Your task to perform on an android device: open app "Facebook" (install if not already installed) Image 0: 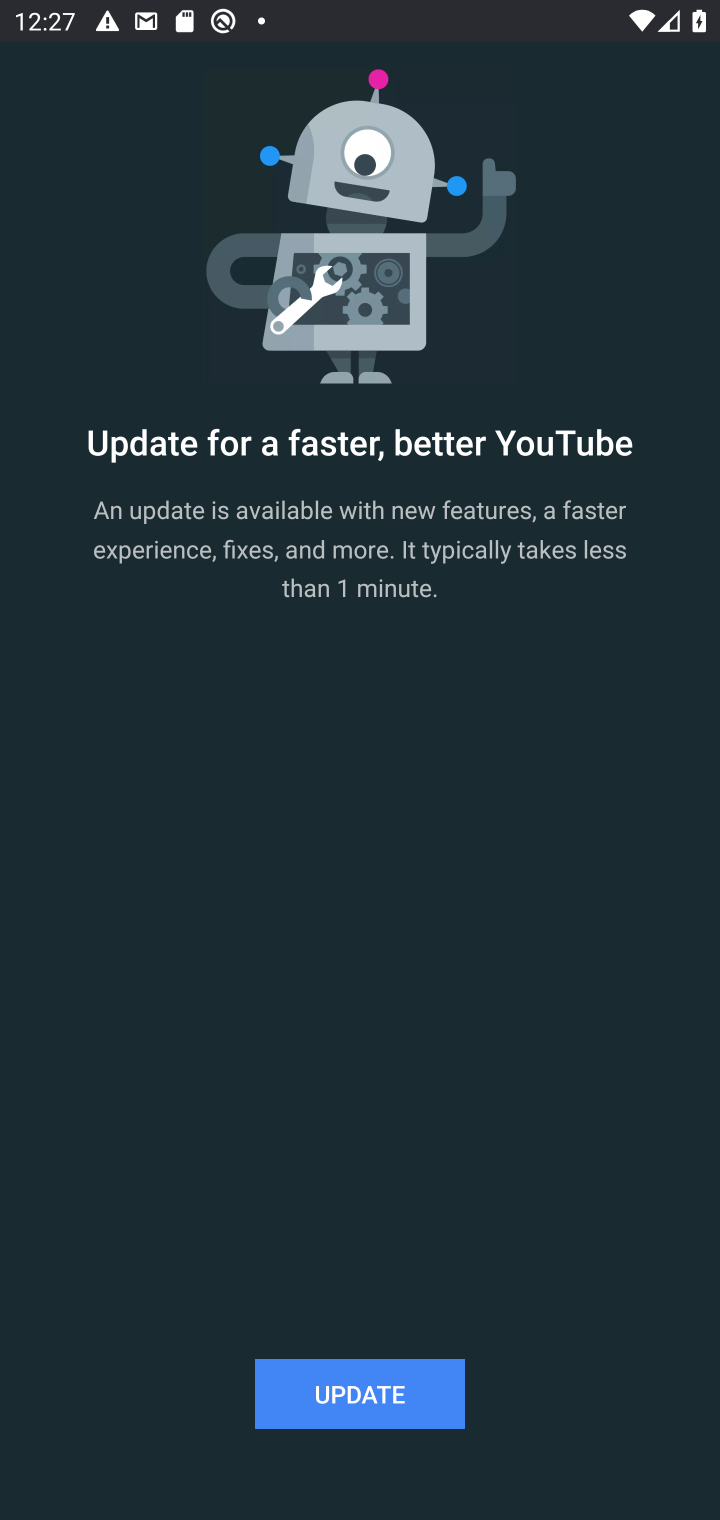
Step 0: press home button
Your task to perform on an android device: open app "Facebook" (install if not already installed) Image 1: 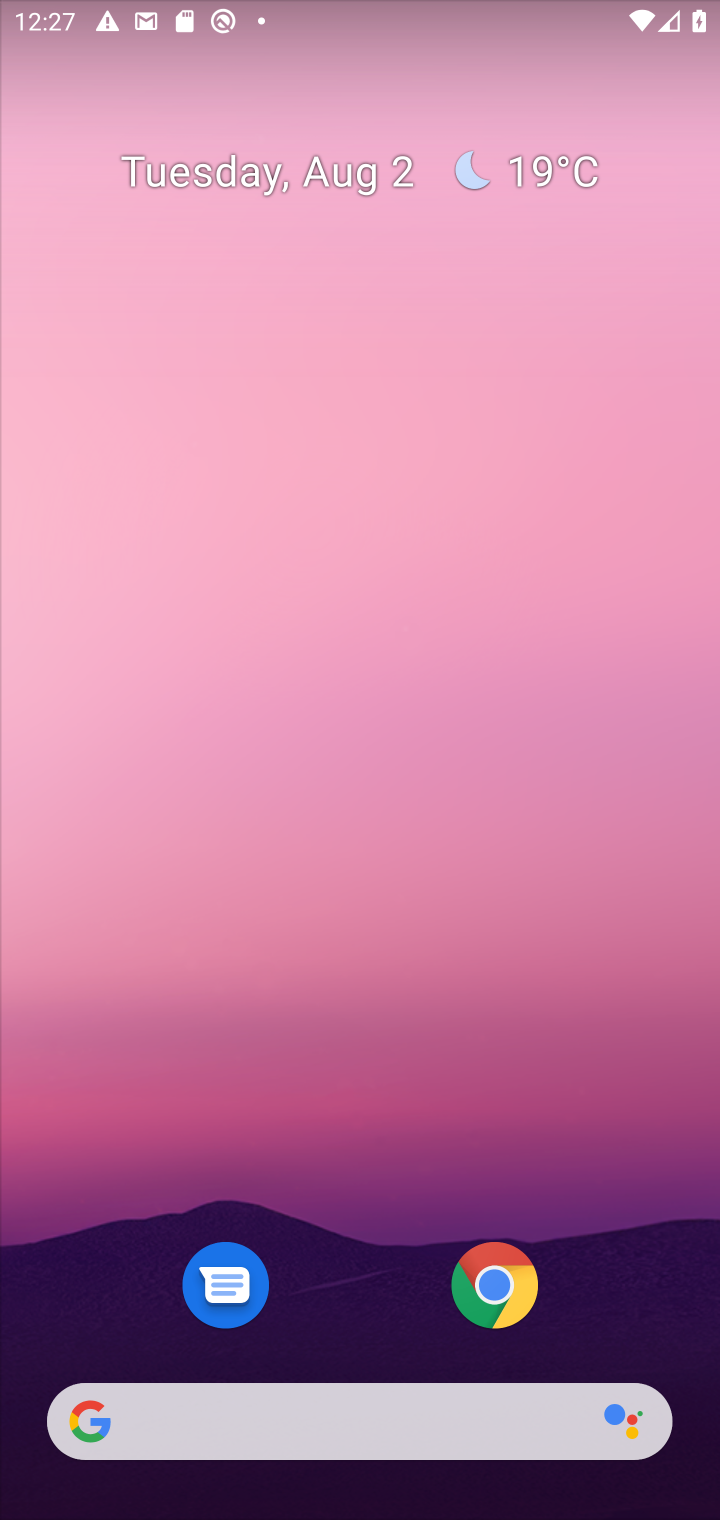
Step 1: drag from (198, 504) to (193, 240)
Your task to perform on an android device: open app "Facebook" (install if not already installed) Image 2: 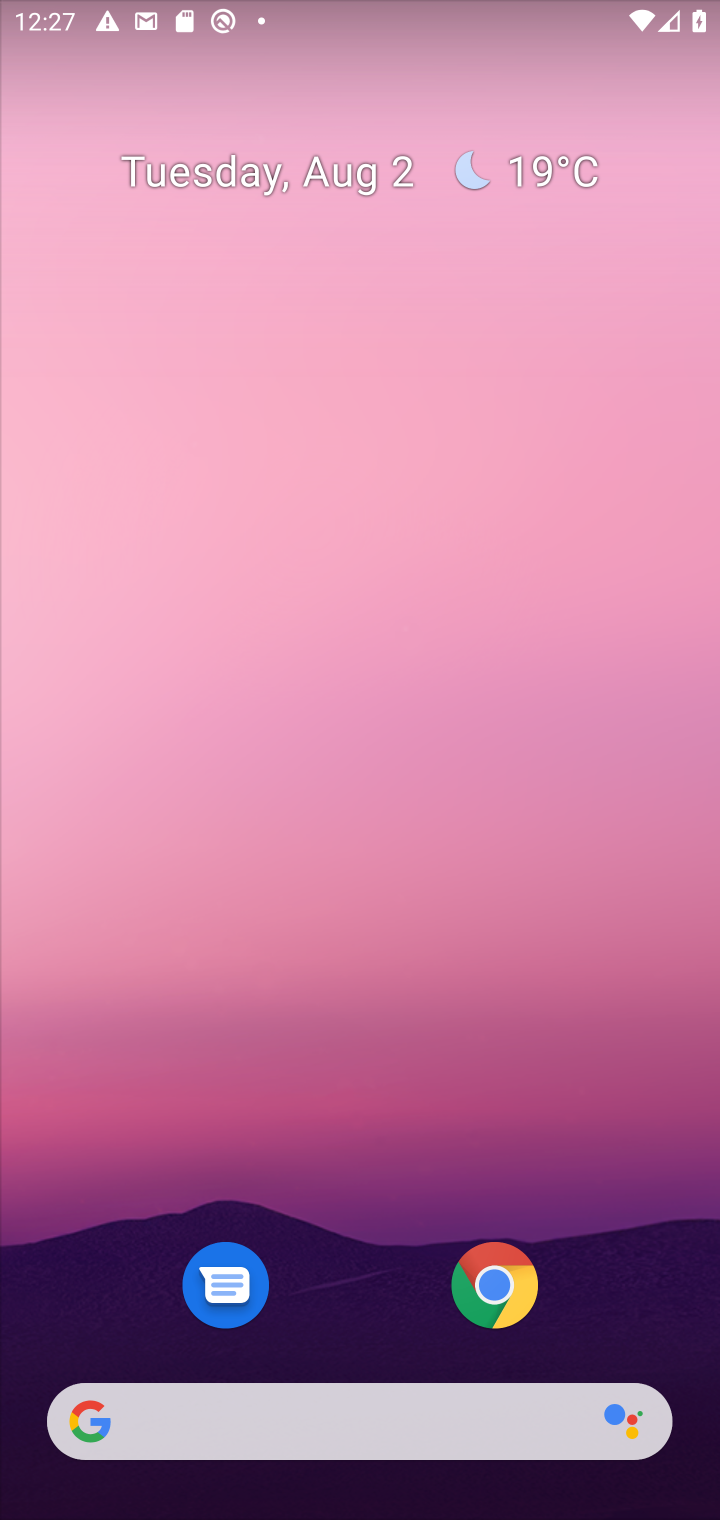
Step 2: drag from (380, 1005) to (250, 251)
Your task to perform on an android device: open app "Facebook" (install if not already installed) Image 3: 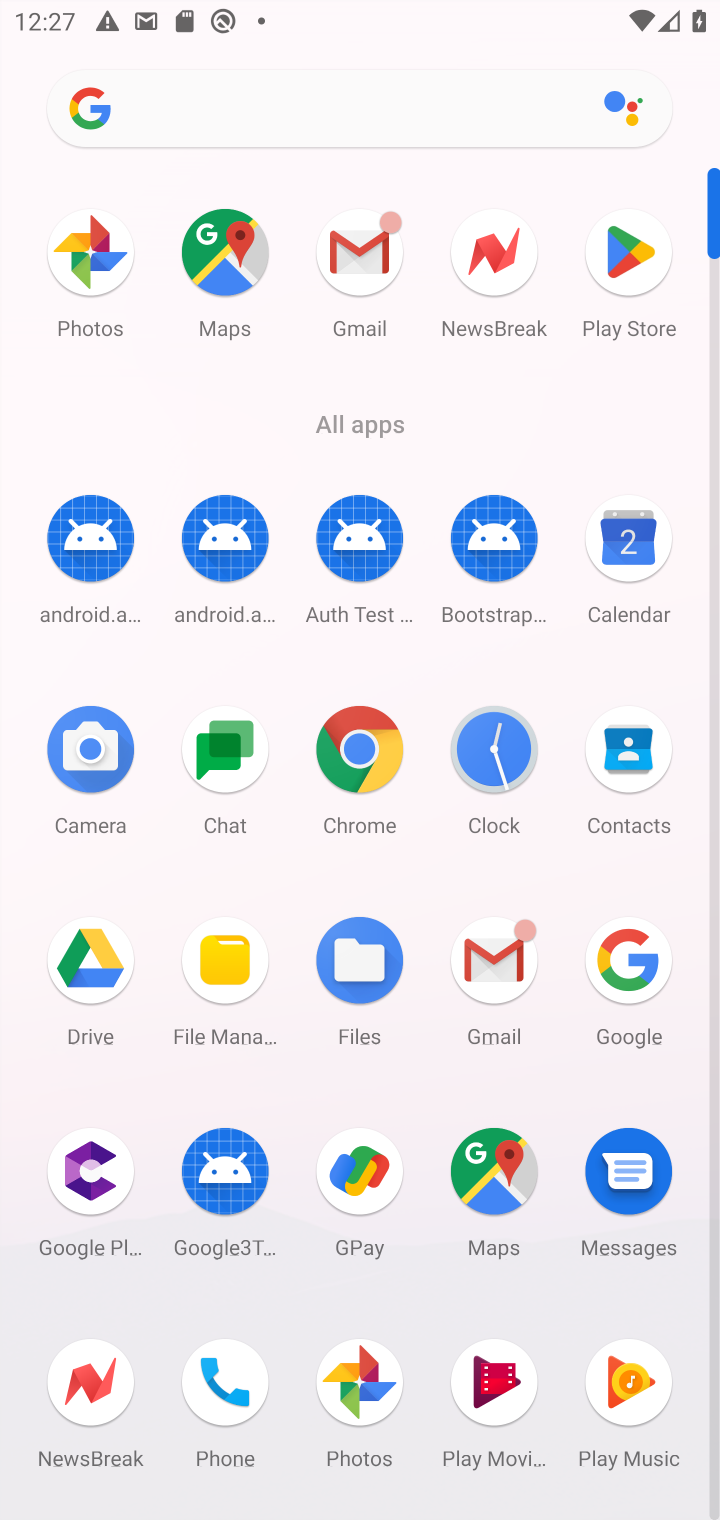
Step 3: click (655, 266)
Your task to perform on an android device: open app "Facebook" (install if not already installed) Image 4: 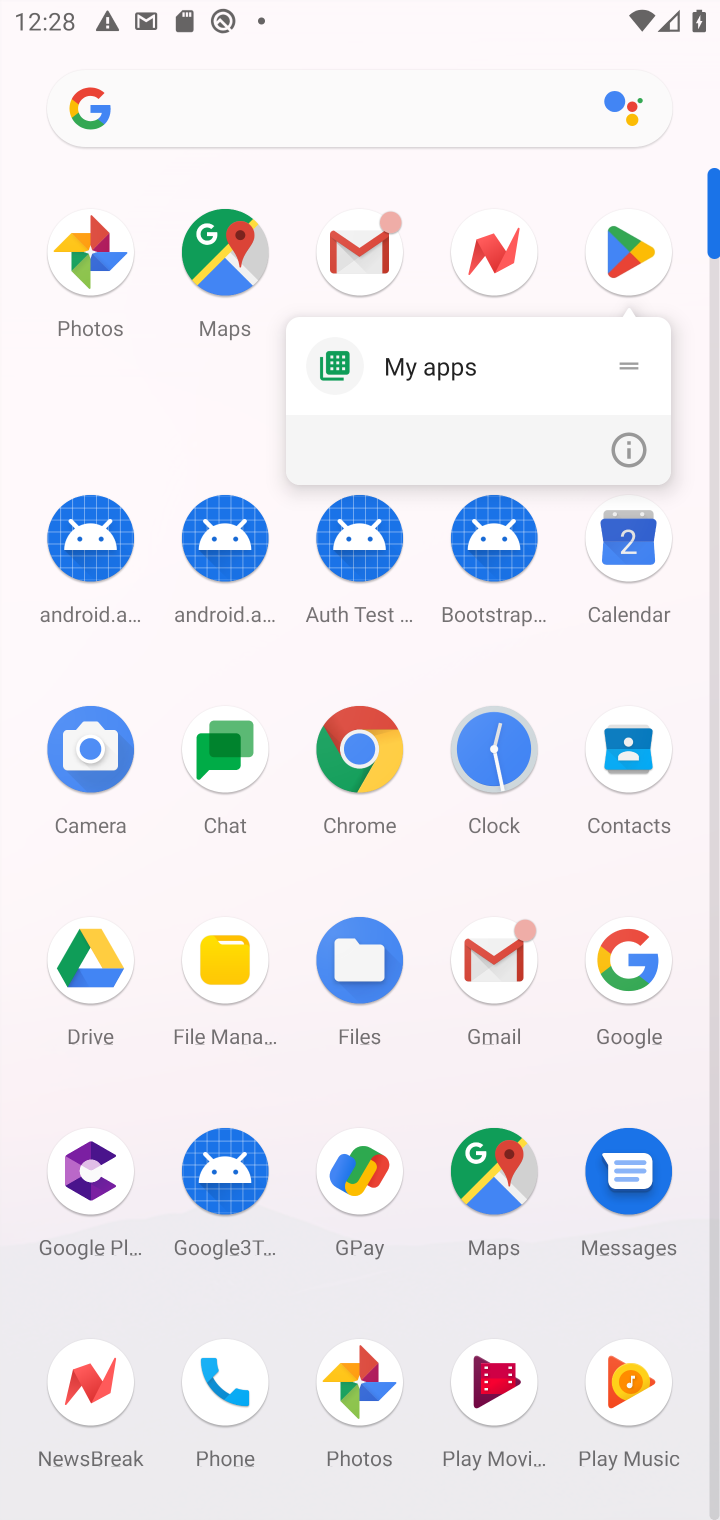
Step 4: click (397, 266)
Your task to perform on an android device: open app "Facebook" (install if not already installed) Image 5: 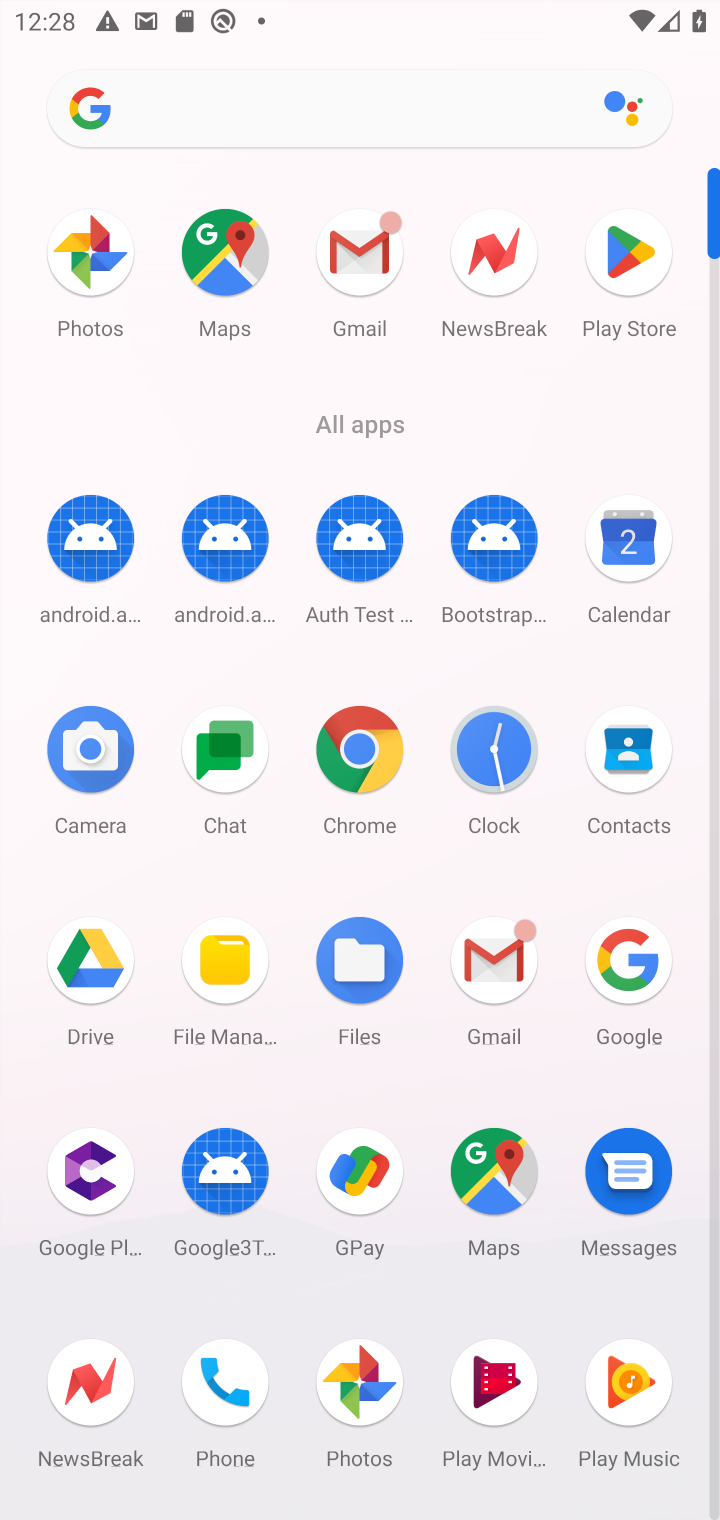
Step 5: press home button
Your task to perform on an android device: open app "Facebook" (install if not already installed) Image 6: 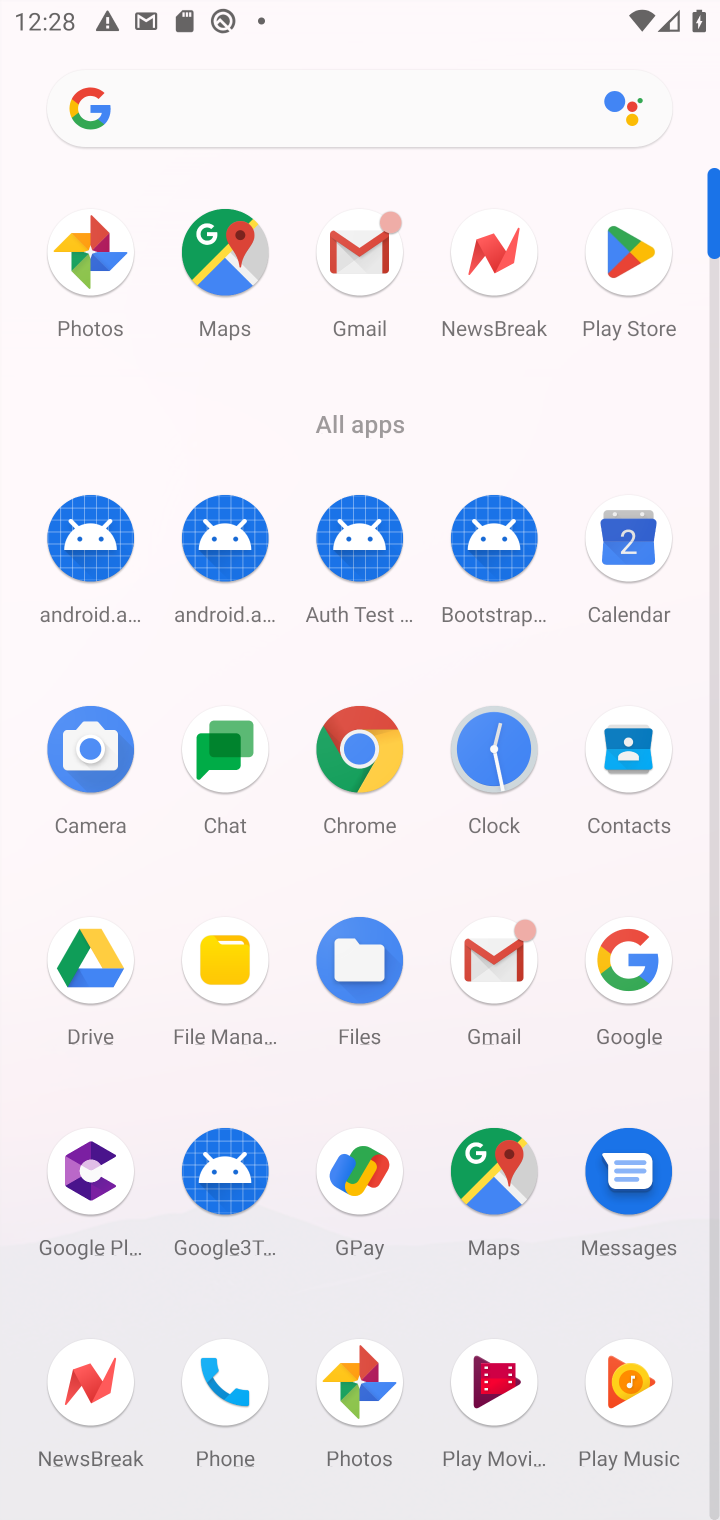
Step 6: press home button
Your task to perform on an android device: open app "Facebook" (install if not already installed) Image 7: 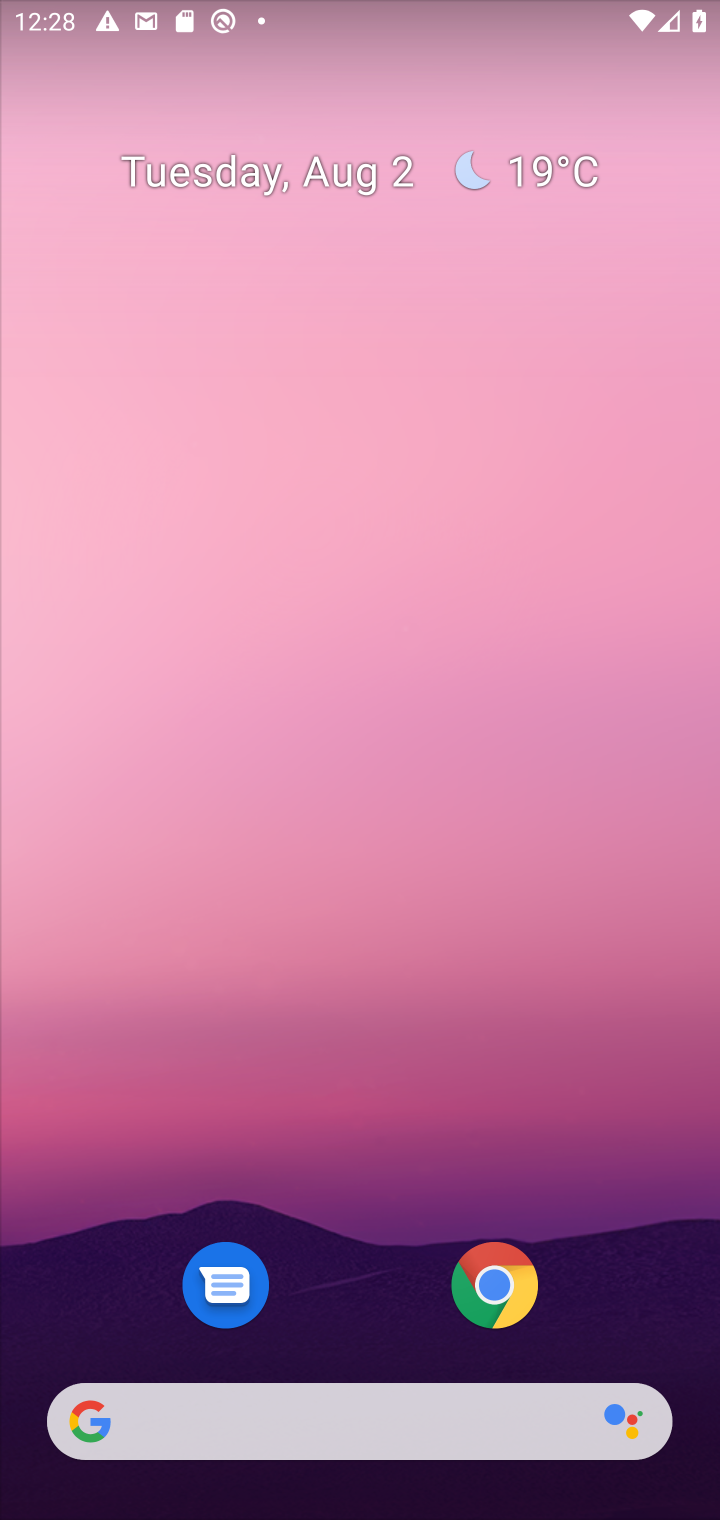
Step 7: drag from (625, 1241) to (229, 181)
Your task to perform on an android device: open app "Facebook" (install if not already installed) Image 8: 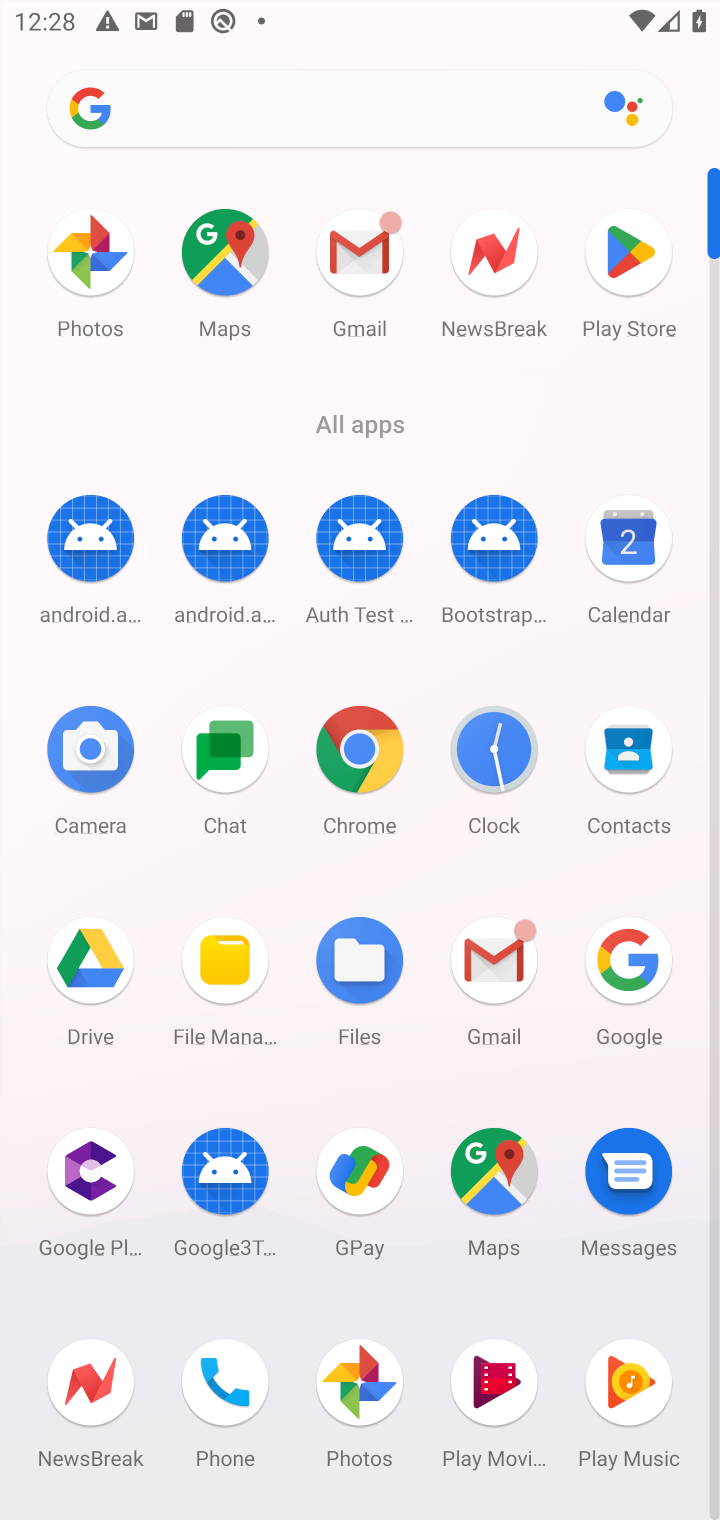
Step 8: click (626, 229)
Your task to perform on an android device: open app "Facebook" (install if not already installed) Image 9: 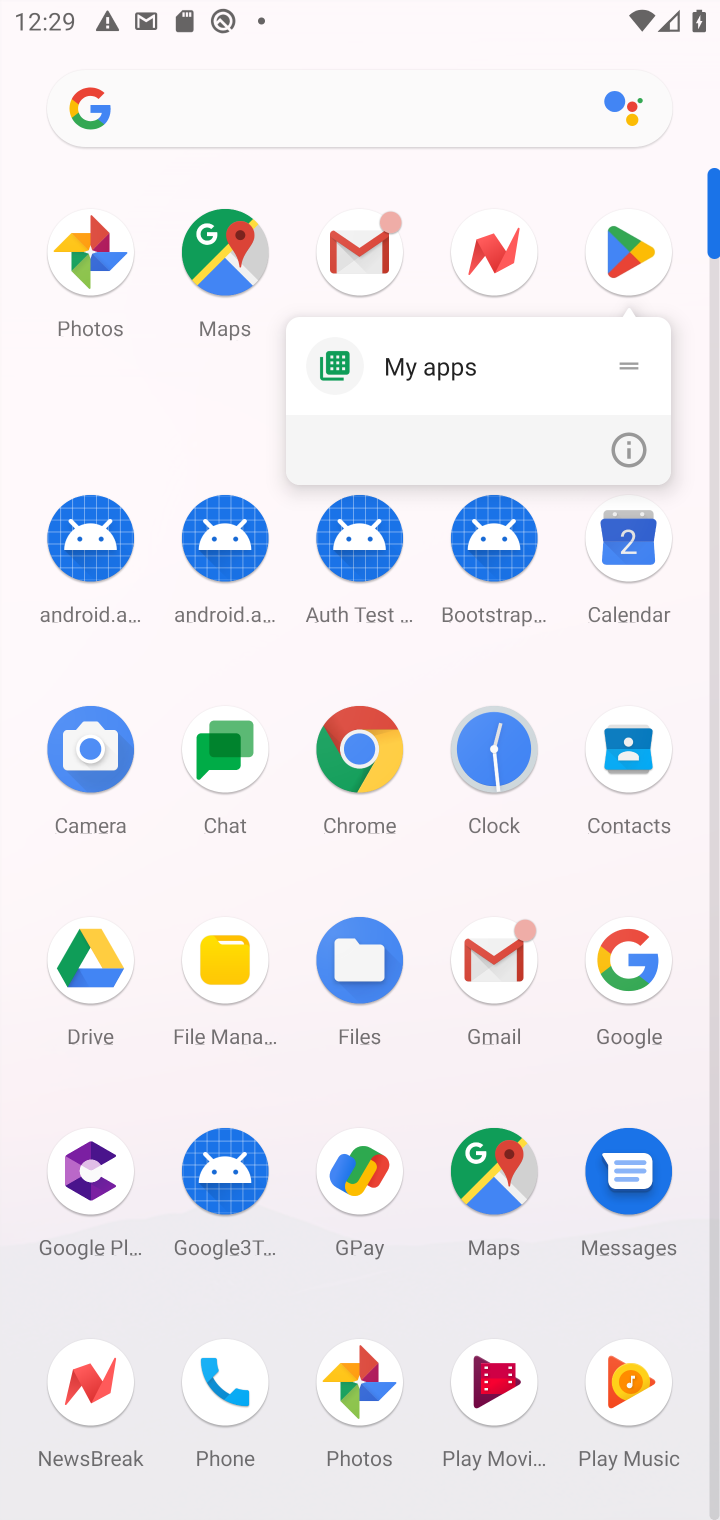
Step 9: click (631, 232)
Your task to perform on an android device: open app "Facebook" (install if not already installed) Image 10: 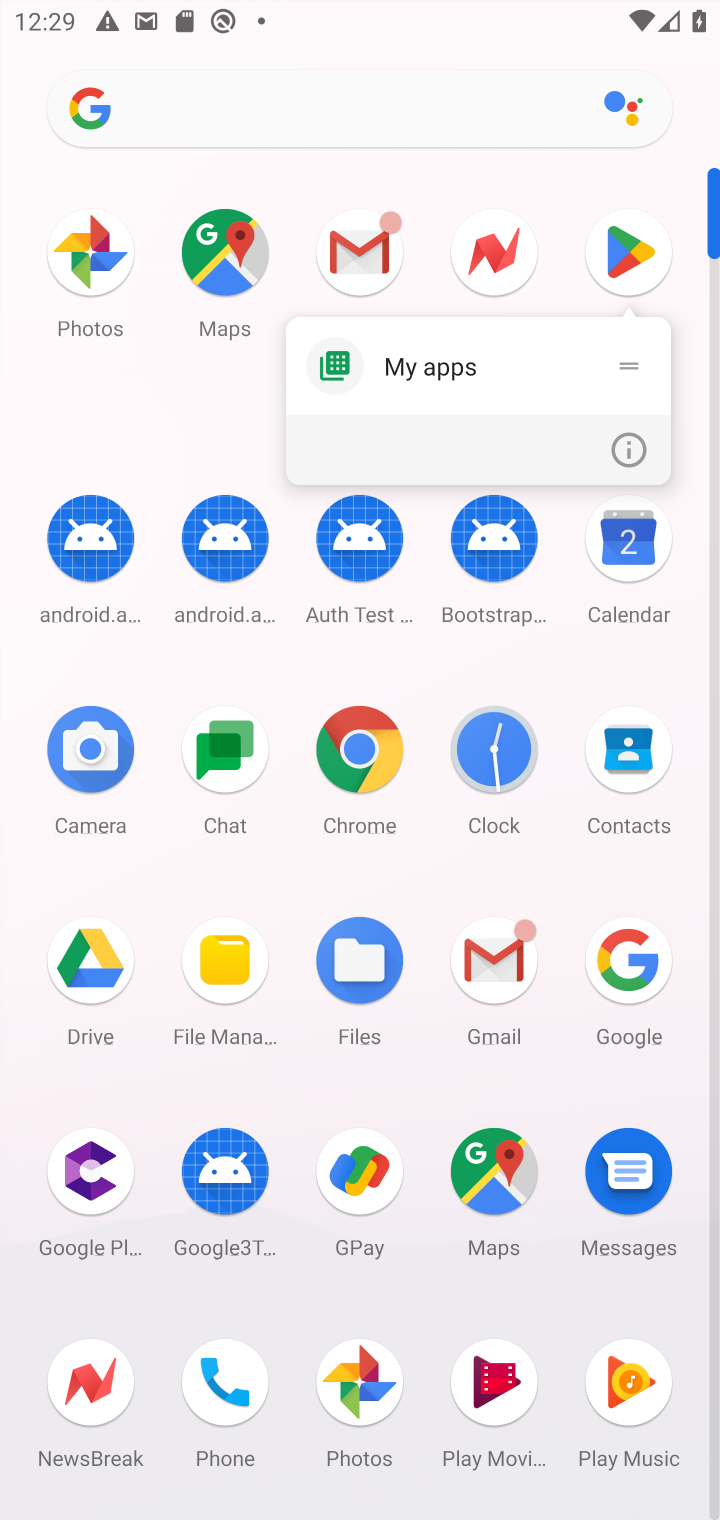
Step 10: click (626, 263)
Your task to perform on an android device: open app "Facebook" (install if not already installed) Image 11: 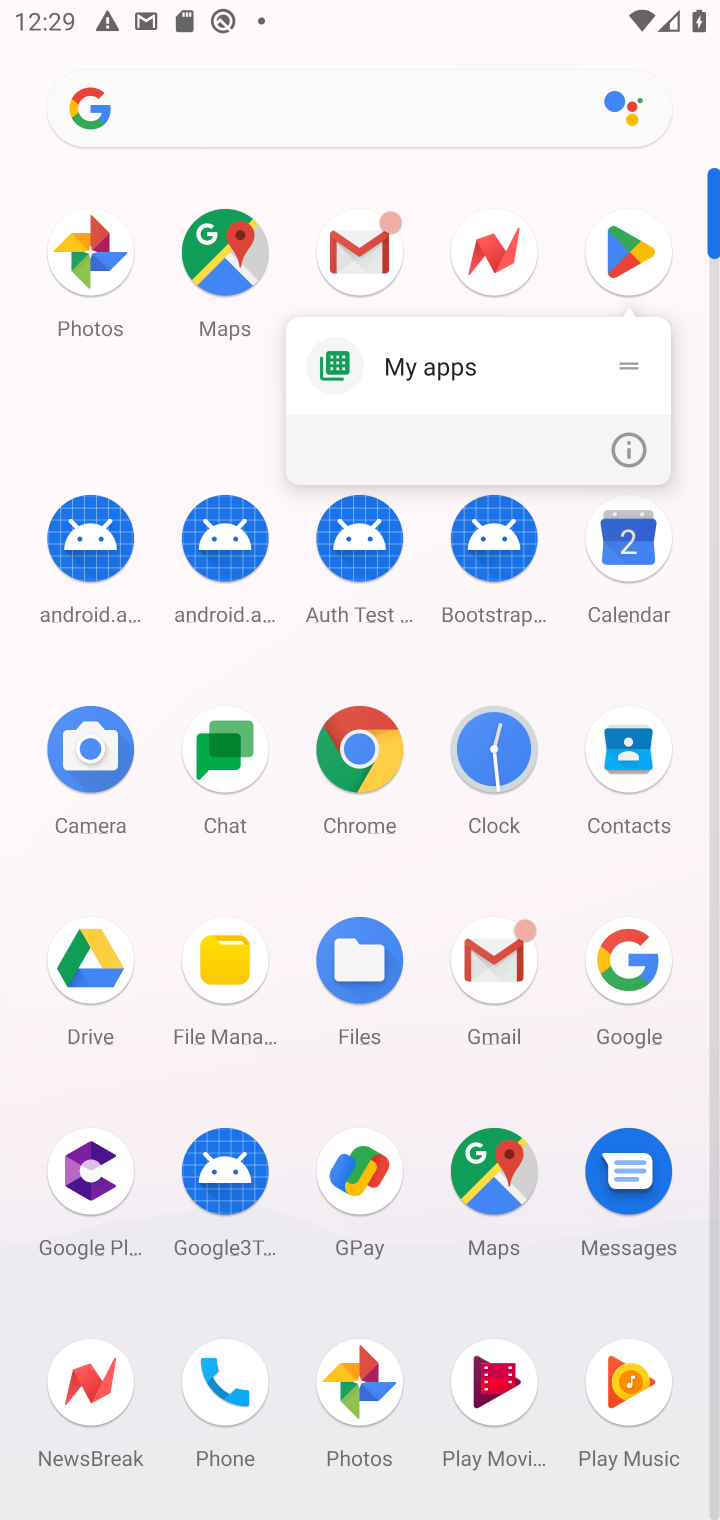
Step 11: click (650, 269)
Your task to perform on an android device: open app "Facebook" (install if not already installed) Image 12: 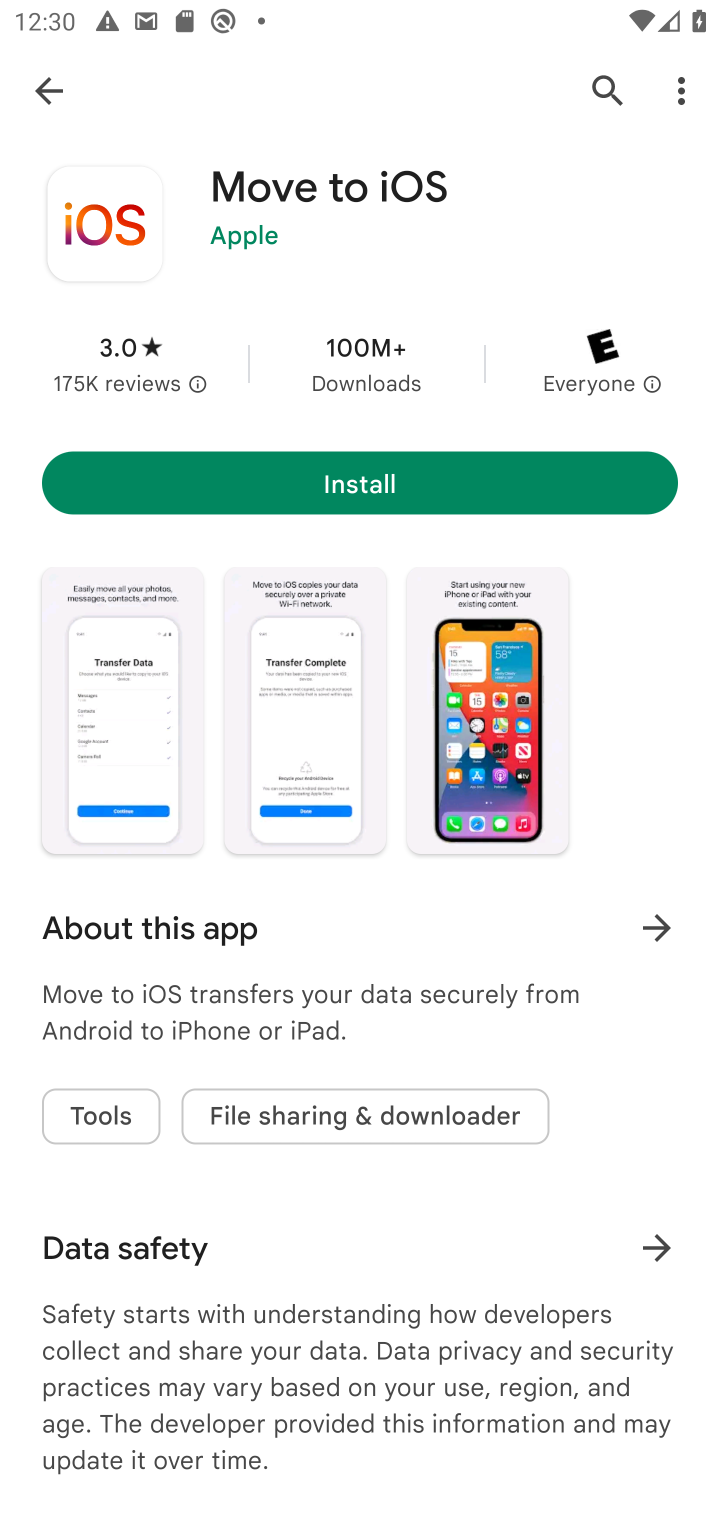
Step 12: click (614, 95)
Your task to perform on an android device: open app "Facebook" (install if not already installed) Image 13: 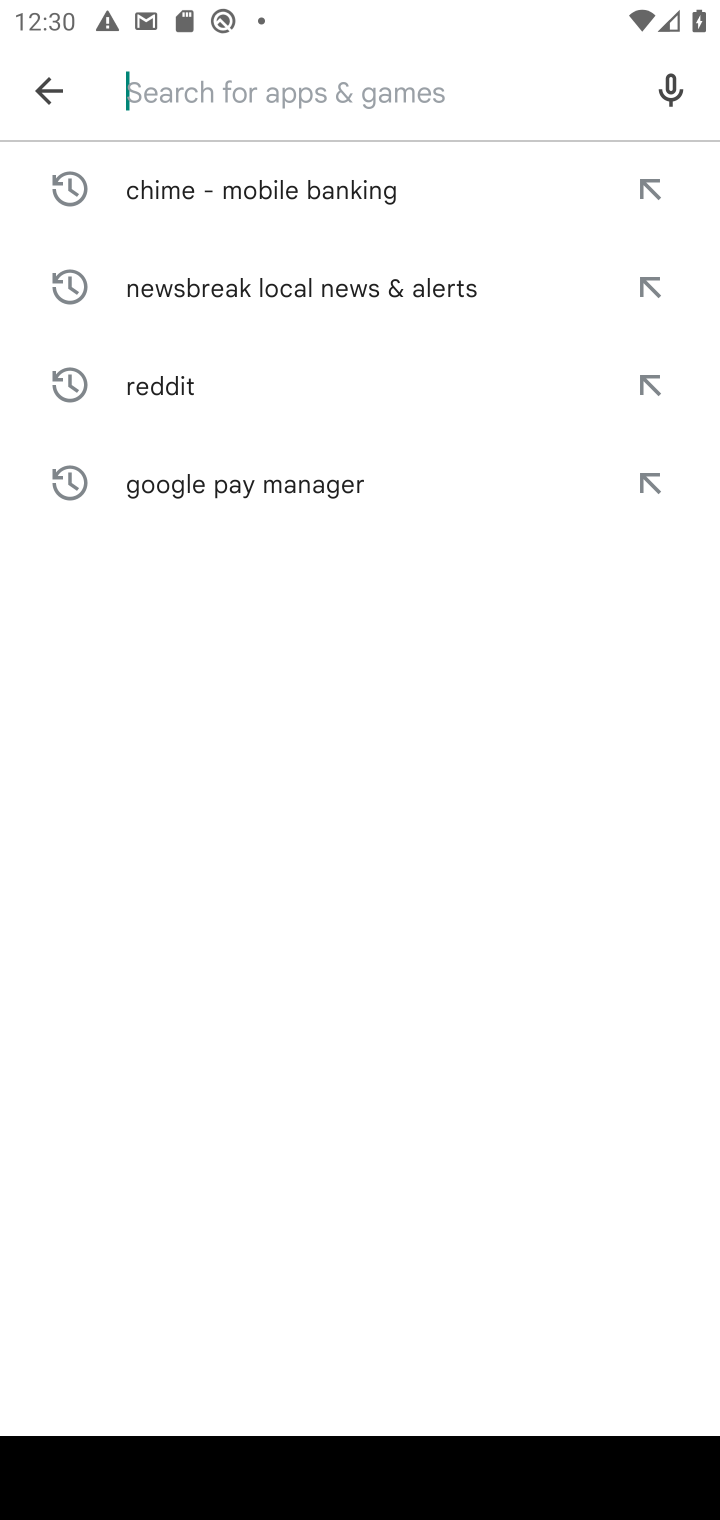
Step 13: click (231, 88)
Your task to perform on an android device: open app "Facebook" (install if not already installed) Image 14: 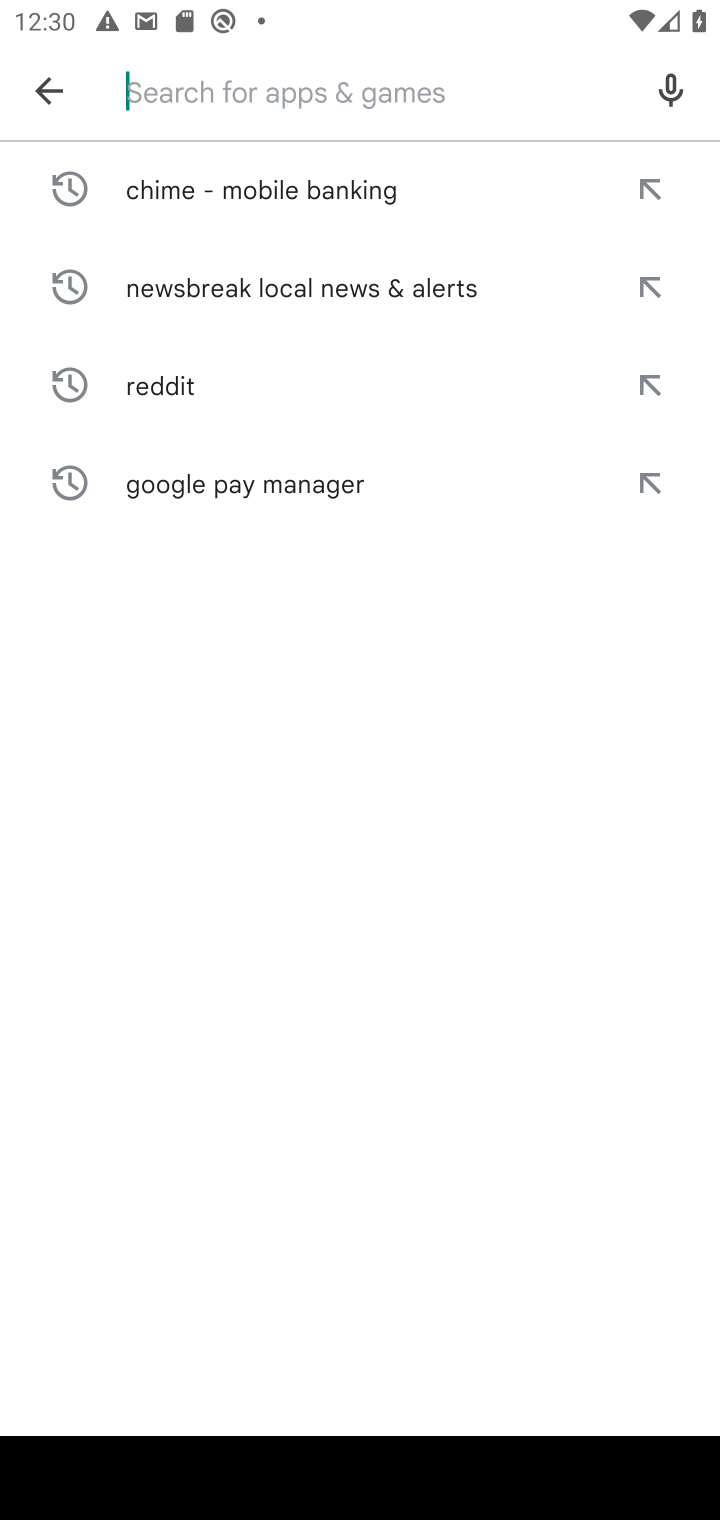
Step 14: click (222, 88)
Your task to perform on an android device: open app "Facebook" (install if not already installed) Image 15: 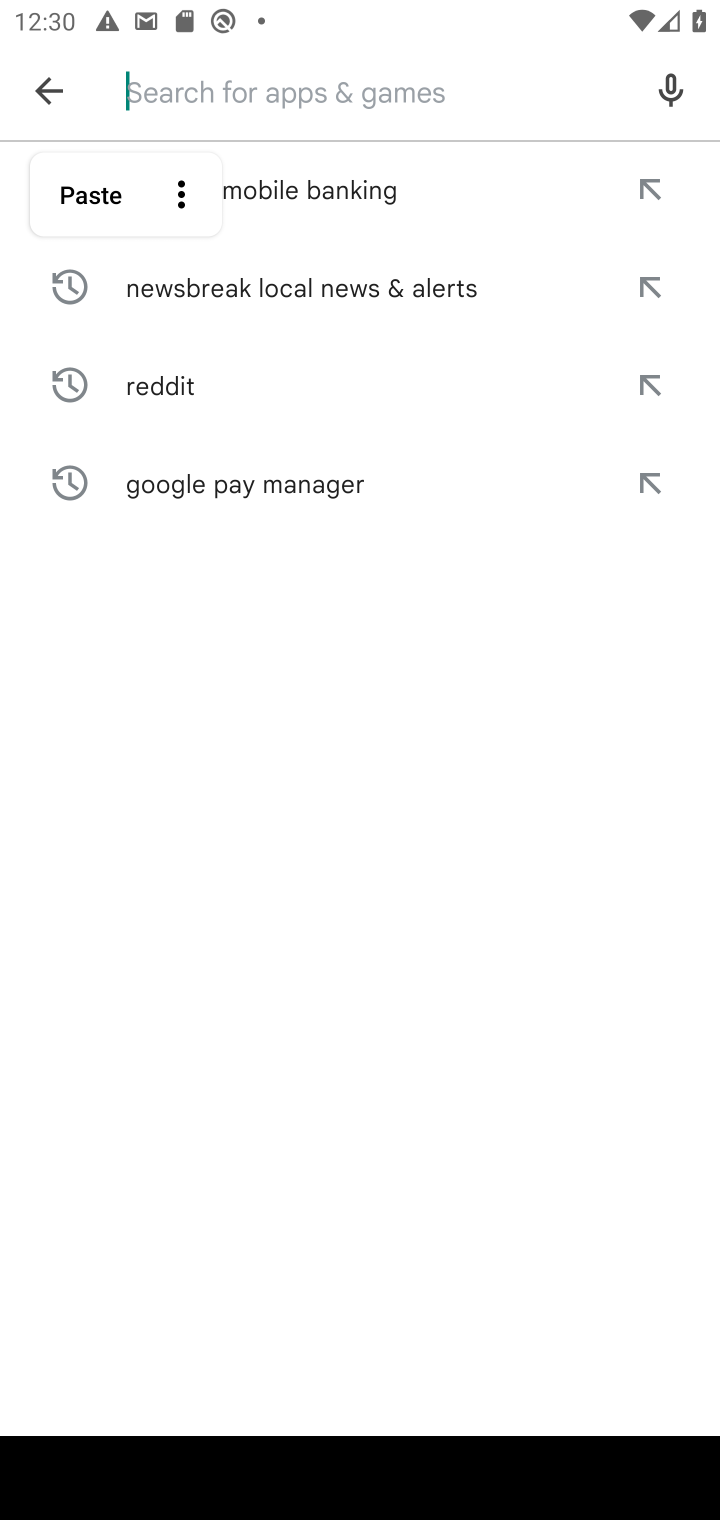
Step 15: type "Facebook"
Your task to perform on an android device: open app "Facebook" (install if not already installed) Image 16: 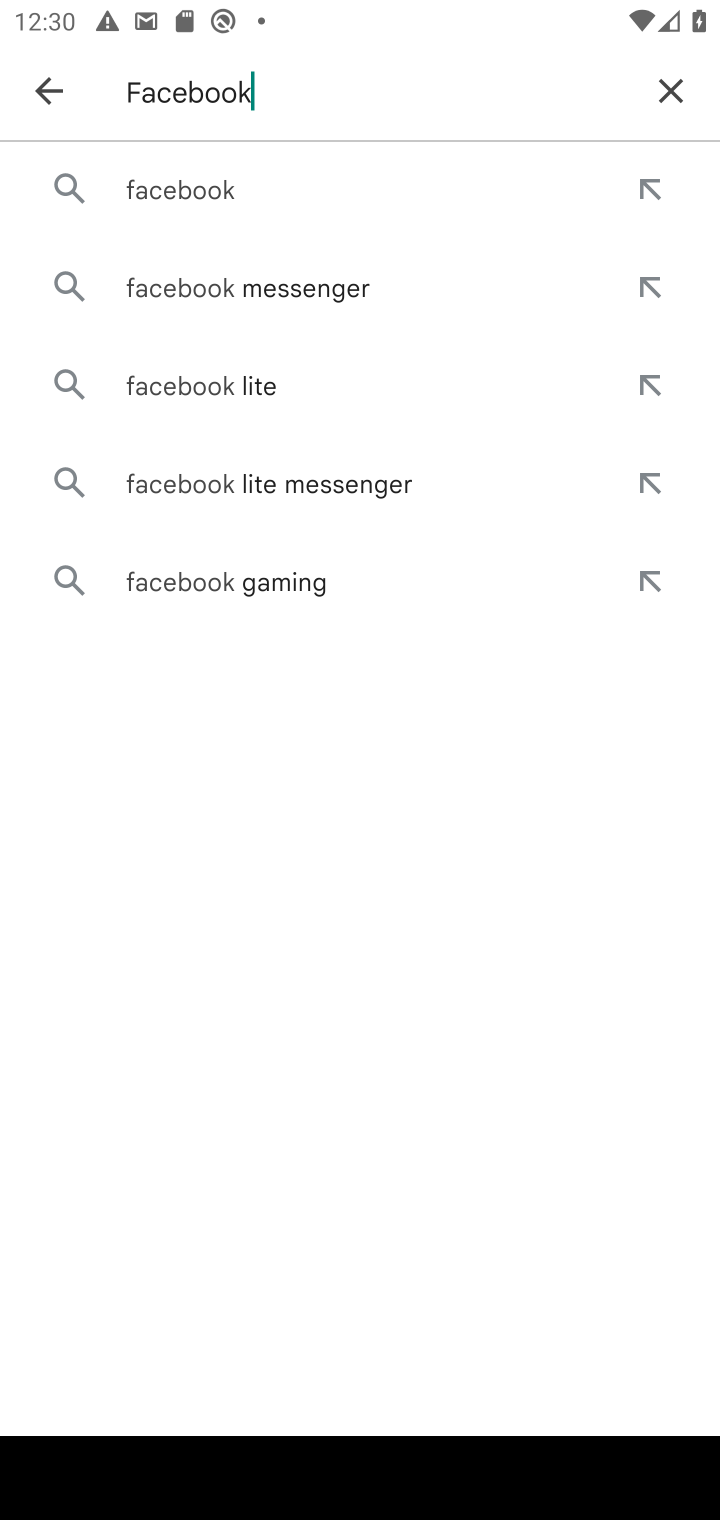
Step 16: click (237, 172)
Your task to perform on an android device: open app "Facebook" (install if not already installed) Image 17: 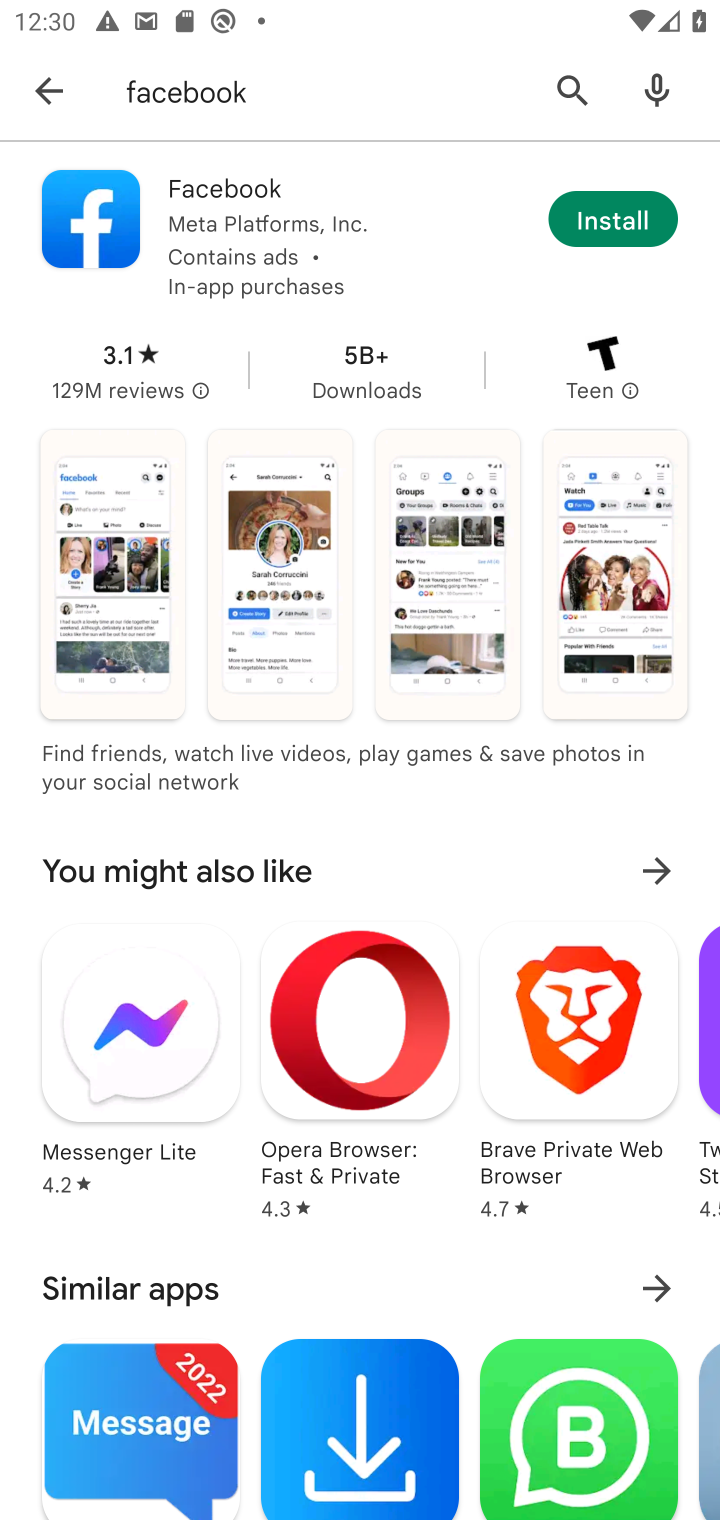
Step 17: click (610, 220)
Your task to perform on an android device: open app "Facebook" (install if not already installed) Image 18: 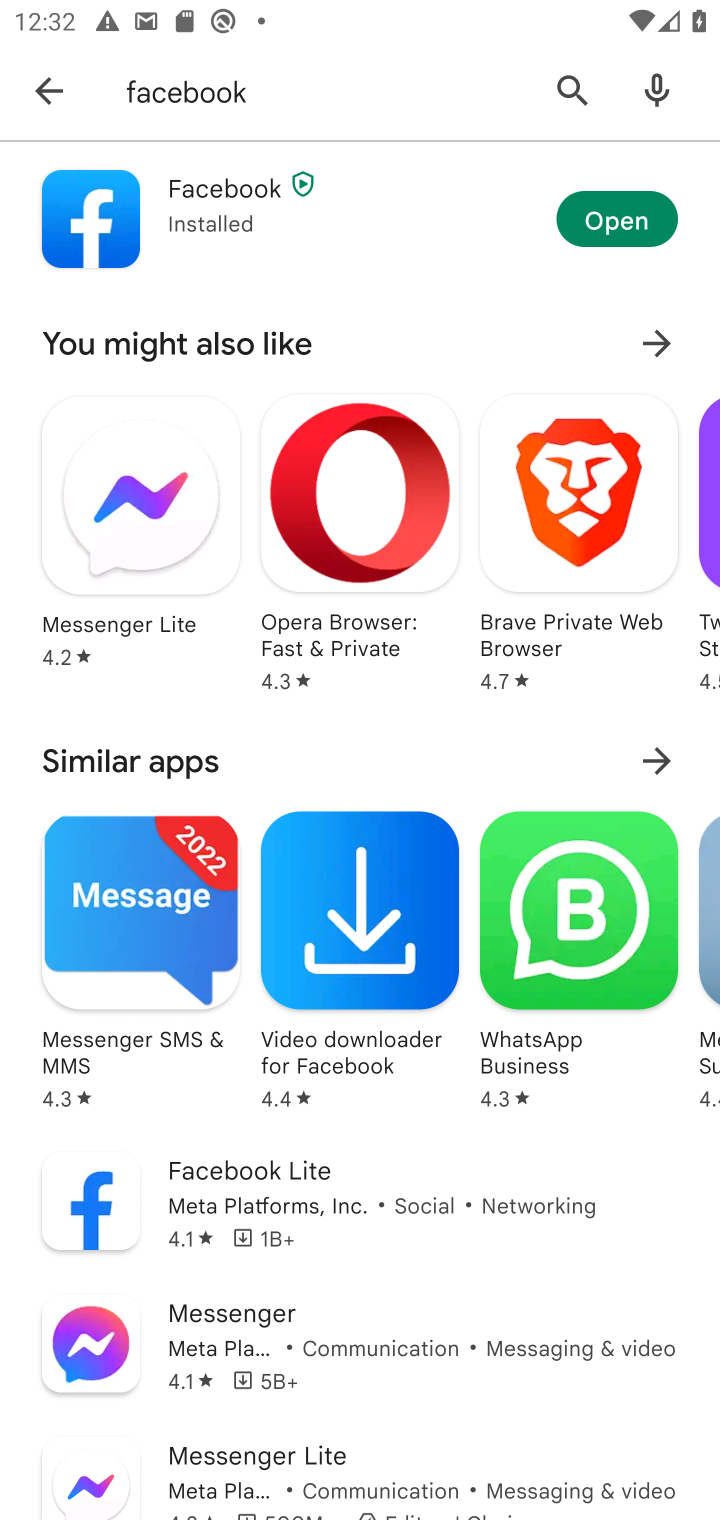
Step 18: click (641, 207)
Your task to perform on an android device: open app "Facebook" (install if not already installed) Image 19: 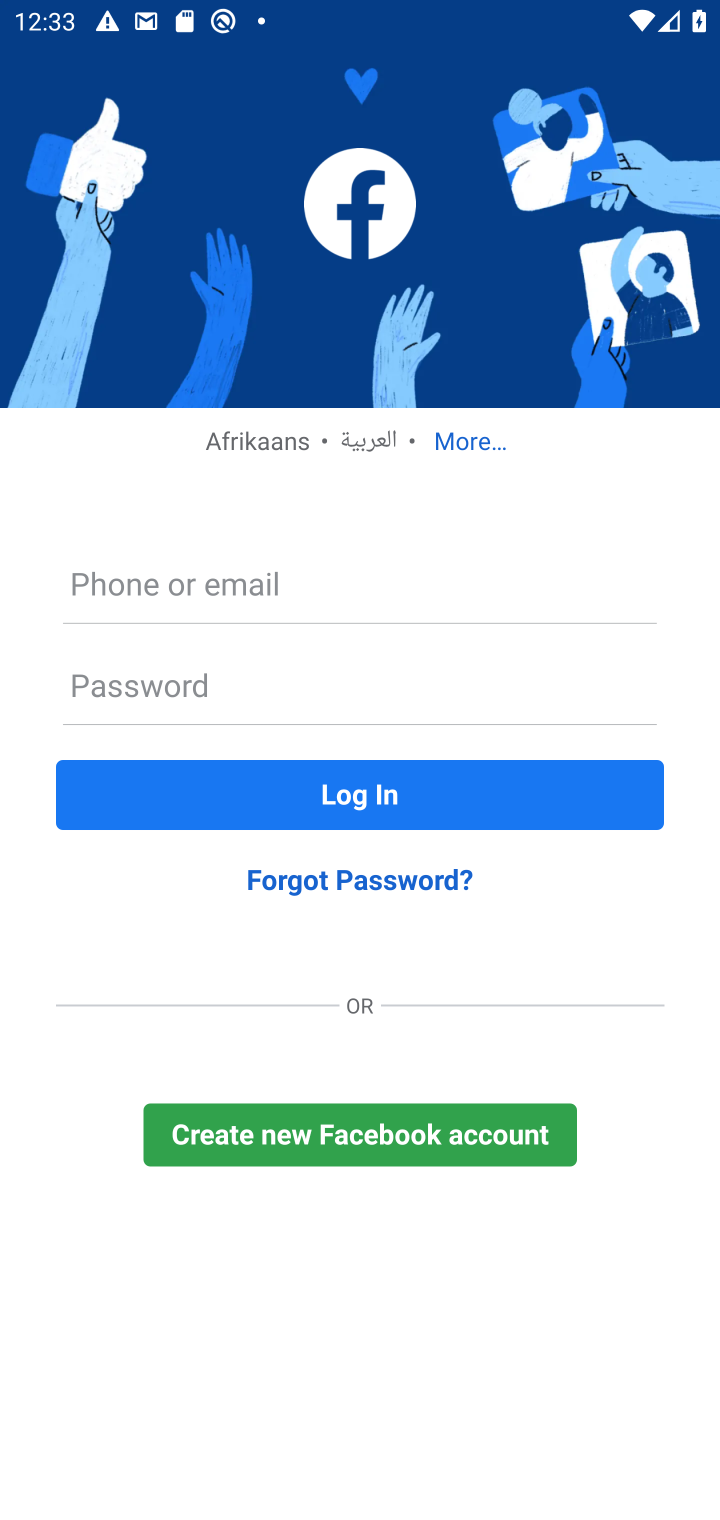
Step 19: task complete